Your task to perform on an android device: Open settings on Google Maps Image 0: 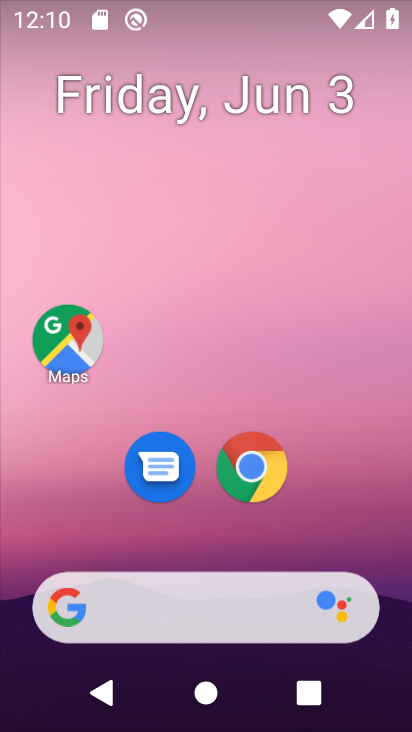
Step 0: click (76, 346)
Your task to perform on an android device: Open settings on Google Maps Image 1: 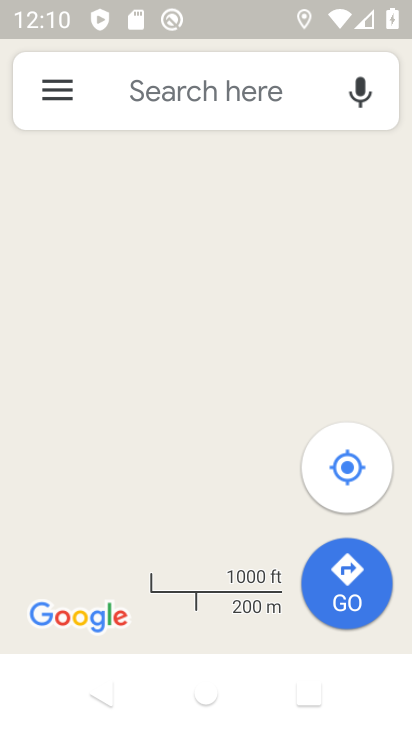
Step 1: click (70, 104)
Your task to perform on an android device: Open settings on Google Maps Image 2: 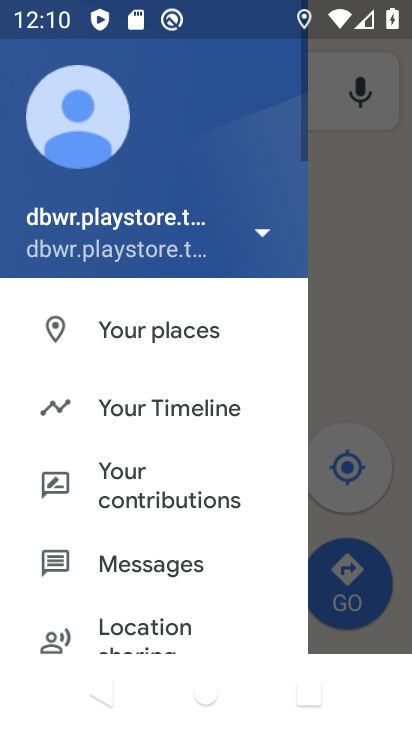
Step 2: drag from (158, 584) to (239, 142)
Your task to perform on an android device: Open settings on Google Maps Image 3: 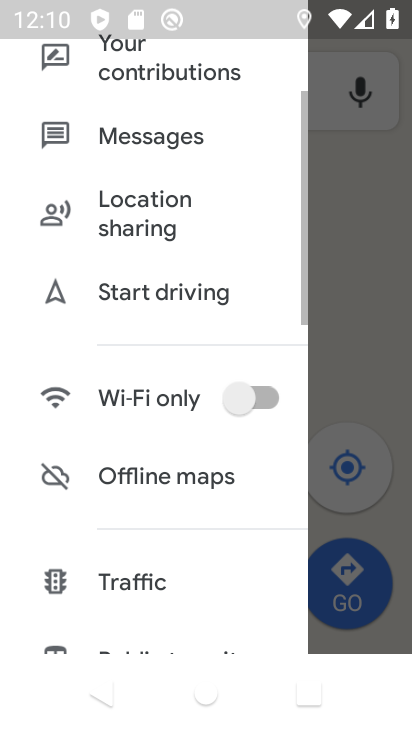
Step 3: drag from (125, 591) to (228, 131)
Your task to perform on an android device: Open settings on Google Maps Image 4: 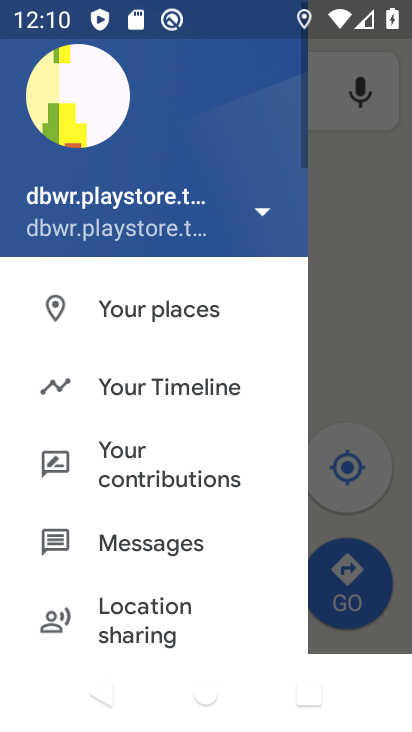
Step 4: drag from (157, 607) to (228, 44)
Your task to perform on an android device: Open settings on Google Maps Image 5: 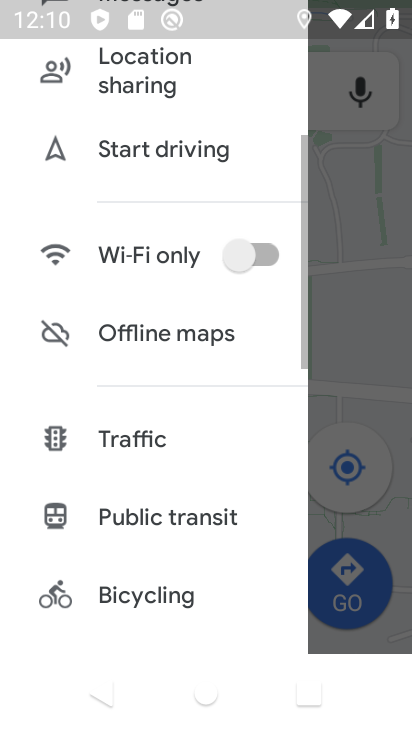
Step 5: drag from (132, 570) to (207, 129)
Your task to perform on an android device: Open settings on Google Maps Image 6: 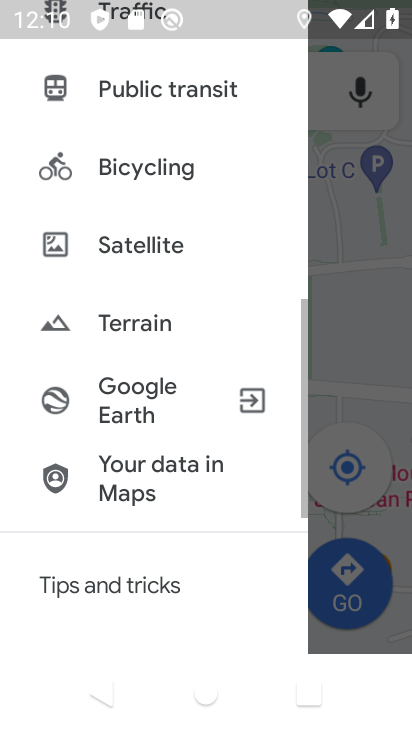
Step 6: drag from (133, 571) to (194, 154)
Your task to perform on an android device: Open settings on Google Maps Image 7: 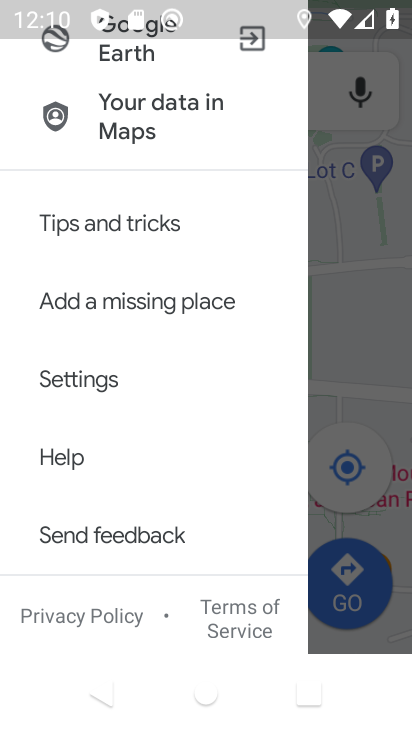
Step 7: click (112, 383)
Your task to perform on an android device: Open settings on Google Maps Image 8: 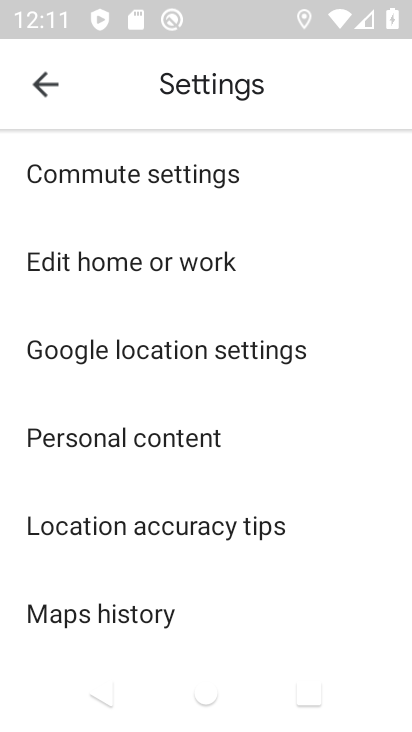
Step 8: task complete